Your task to perform on an android device: Open notification settings Image 0: 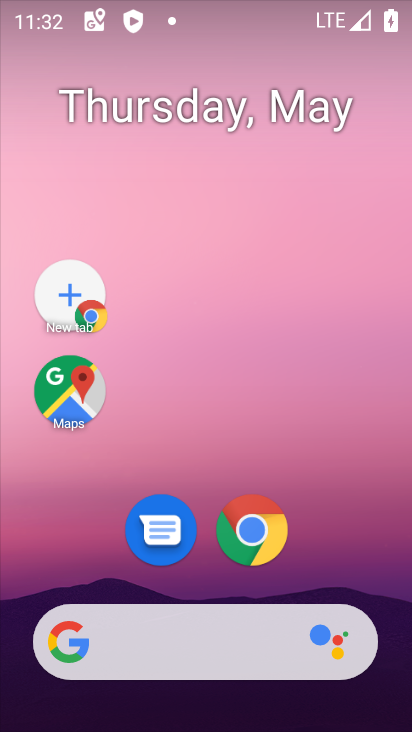
Step 0: click (379, 67)
Your task to perform on an android device: Open notification settings Image 1: 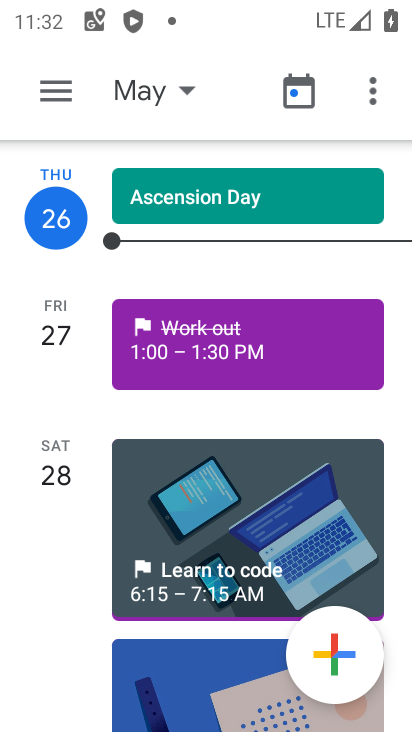
Step 1: press back button
Your task to perform on an android device: Open notification settings Image 2: 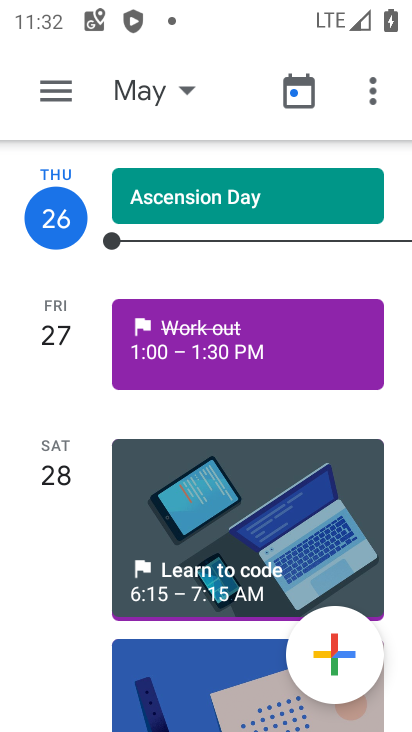
Step 2: press back button
Your task to perform on an android device: Open notification settings Image 3: 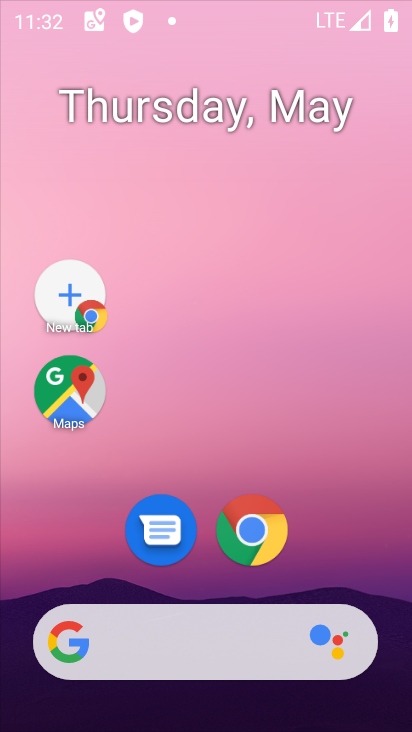
Step 3: press back button
Your task to perform on an android device: Open notification settings Image 4: 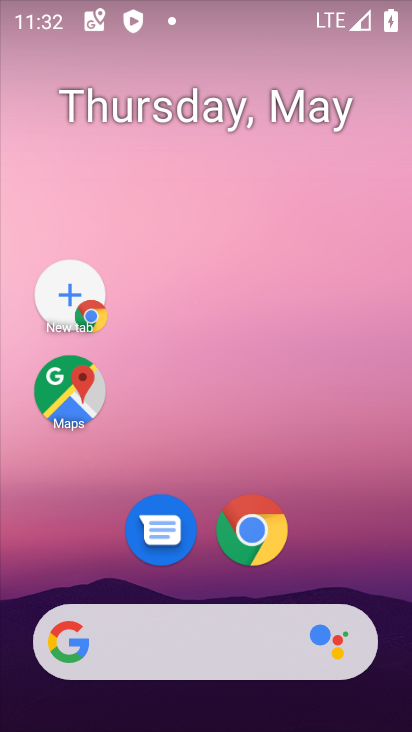
Step 4: drag from (203, 708) to (183, 245)
Your task to perform on an android device: Open notification settings Image 5: 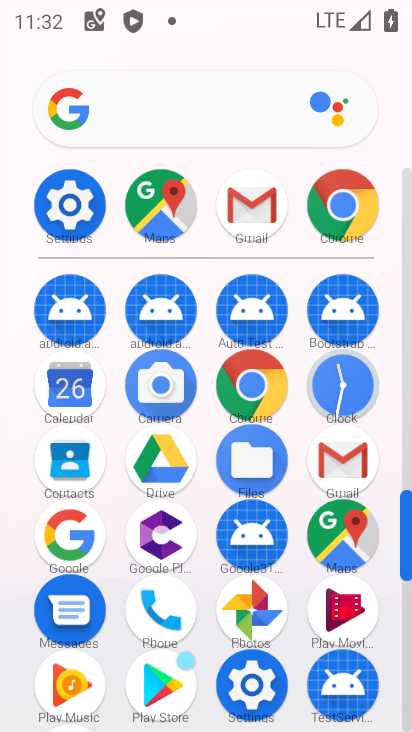
Step 5: drag from (244, 543) to (265, 111)
Your task to perform on an android device: Open notification settings Image 6: 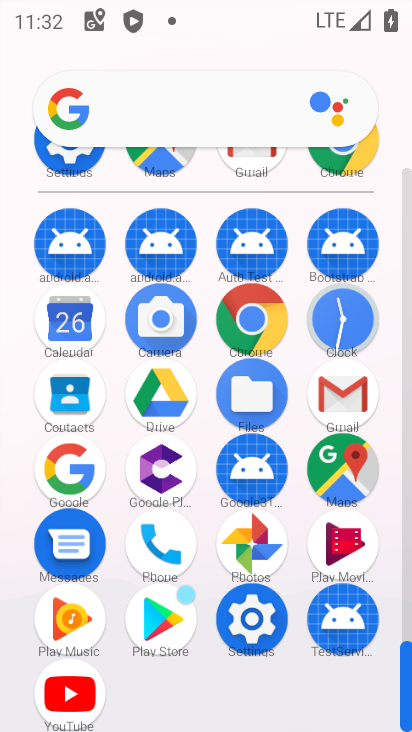
Step 6: click (248, 614)
Your task to perform on an android device: Open notification settings Image 7: 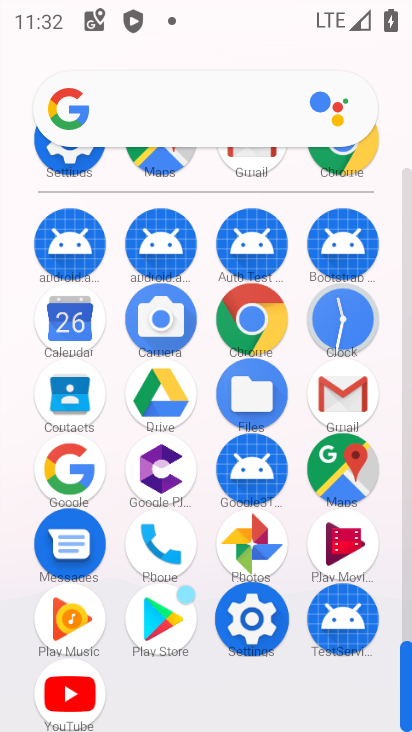
Step 7: click (248, 614)
Your task to perform on an android device: Open notification settings Image 8: 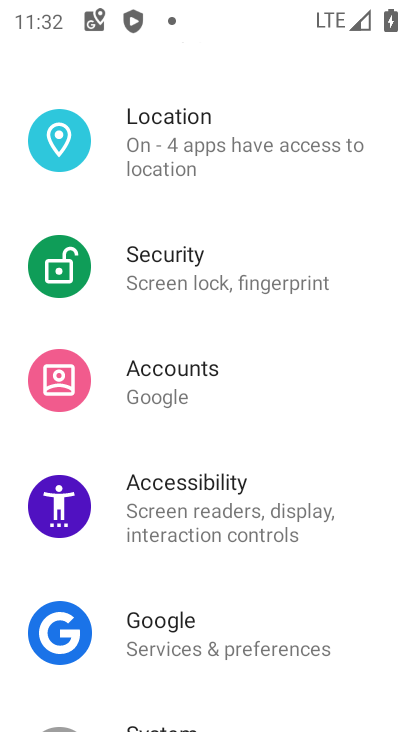
Step 8: drag from (233, 269) to (228, 599)
Your task to perform on an android device: Open notification settings Image 9: 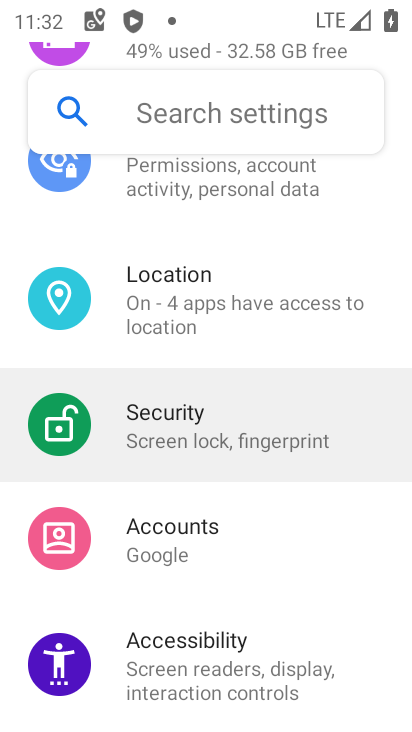
Step 9: drag from (159, 244) to (179, 517)
Your task to perform on an android device: Open notification settings Image 10: 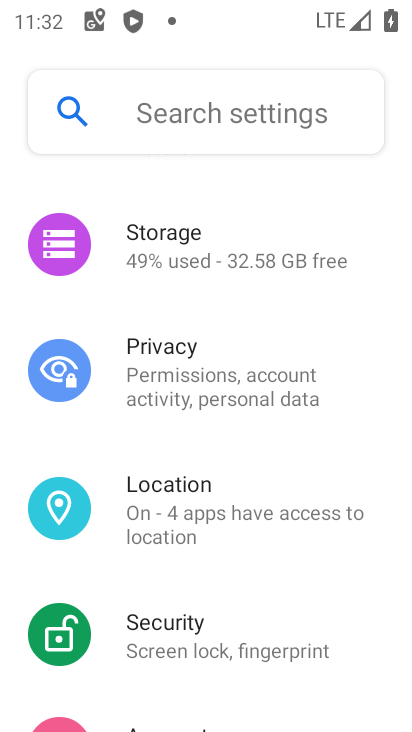
Step 10: drag from (173, 303) to (278, 575)
Your task to perform on an android device: Open notification settings Image 11: 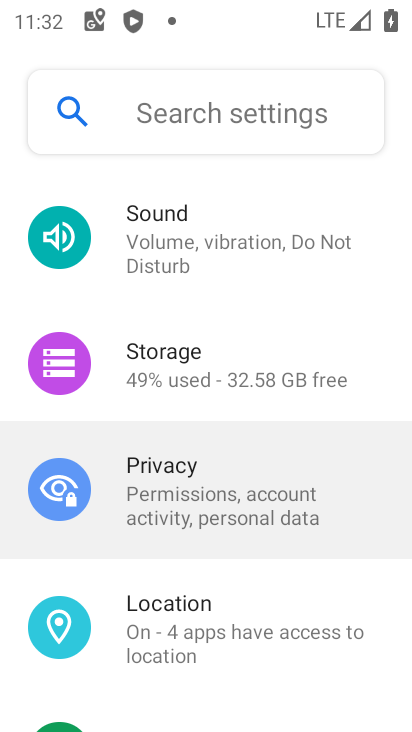
Step 11: drag from (233, 283) to (282, 597)
Your task to perform on an android device: Open notification settings Image 12: 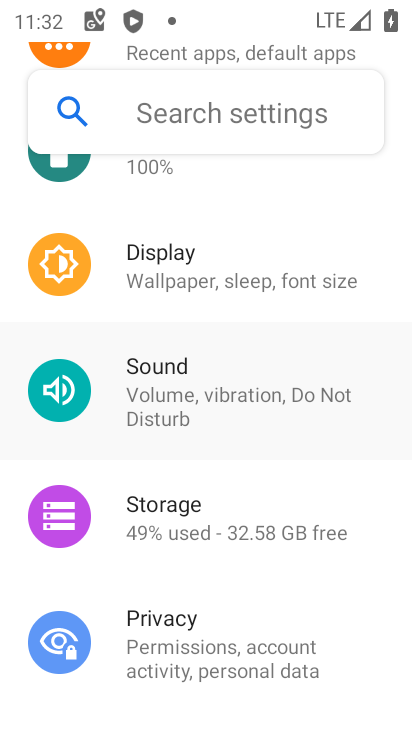
Step 12: drag from (229, 354) to (353, 701)
Your task to perform on an android device: Open notification settings Image 13: 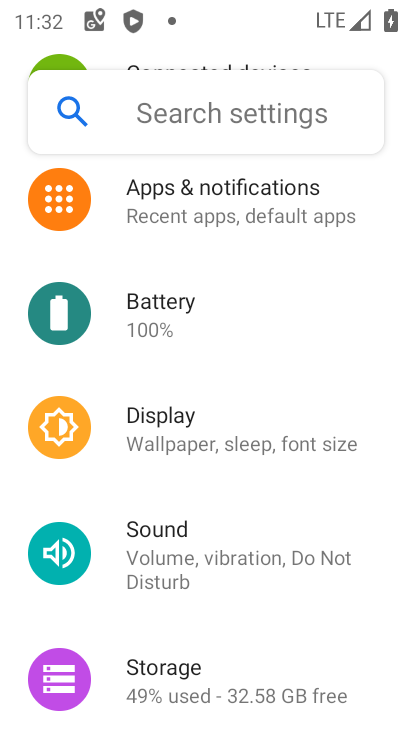
Step 13: drag from (230, 303) to (277, 600)
Your task to perform on an android device: Open notification settings Image 14: 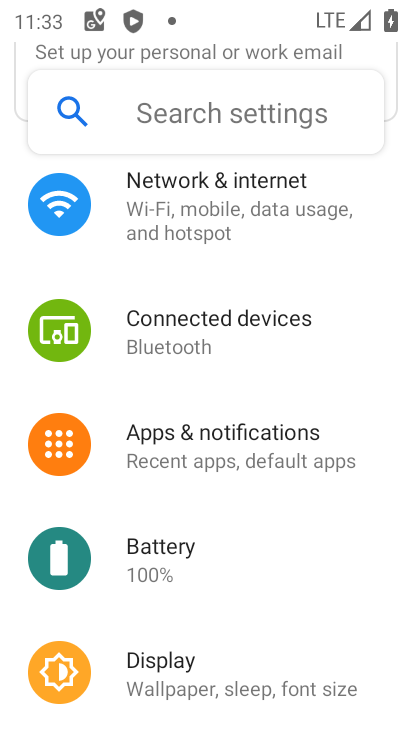
Step 14: drag from (264, 257) to (297, 585)
Your task to perform on an android device: Open notification settings Image 15: 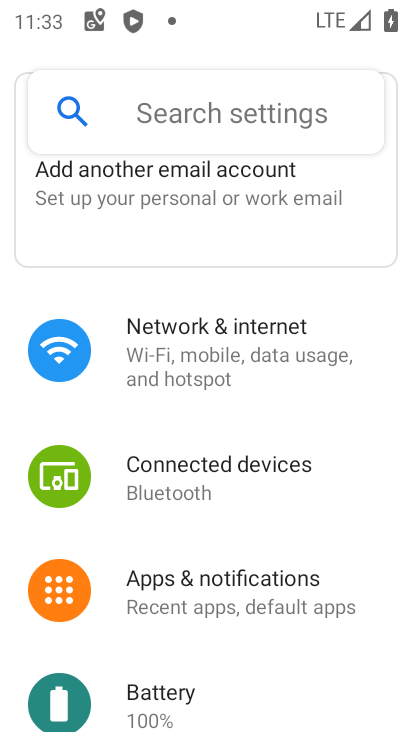
Step 15: click (233, 598)
Your task to perform on an android device: Open notification settings Image 16: 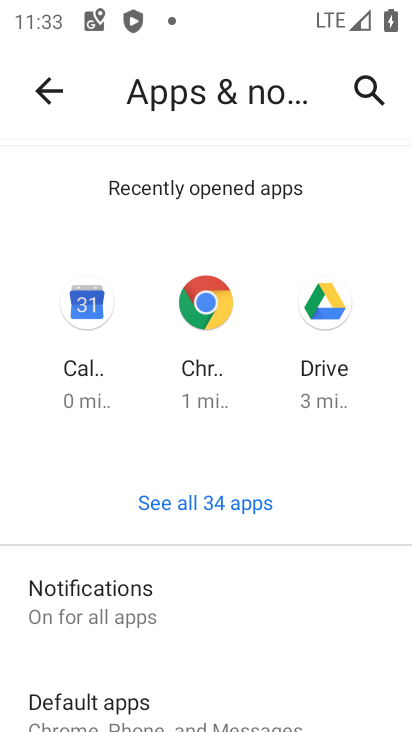
Step 16: click (67, 597)
Your task to perform on an android device: Open notification settings Image 17: 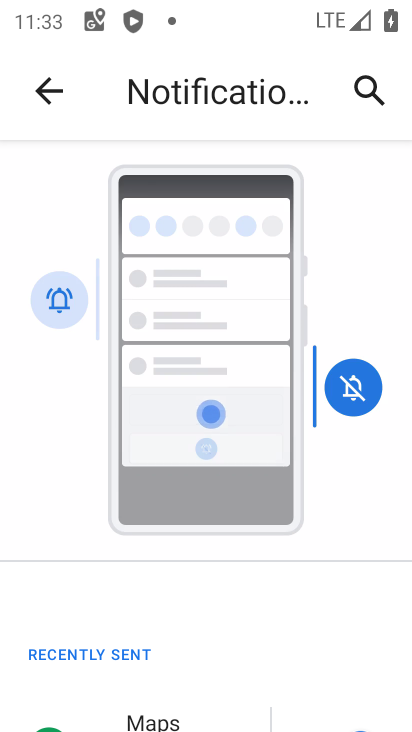
Step 17: task complete